Your task to perform on an android device: Search for sushi restaurants on Maps Image 0: 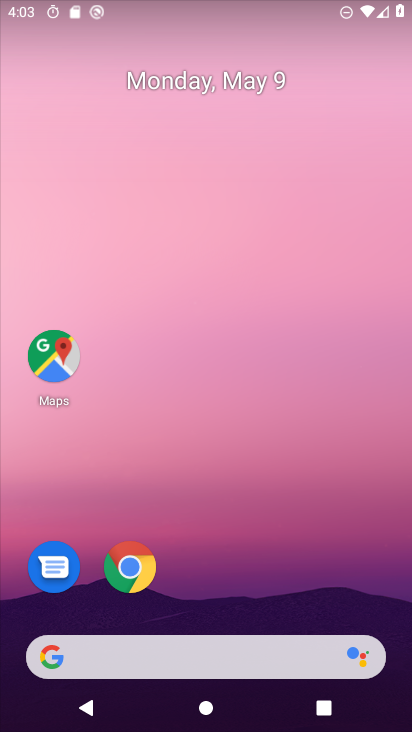
Step 0: click (58, 373)
Your task to perform on an android device: Search for sushi restaurants on Maps Image 1: 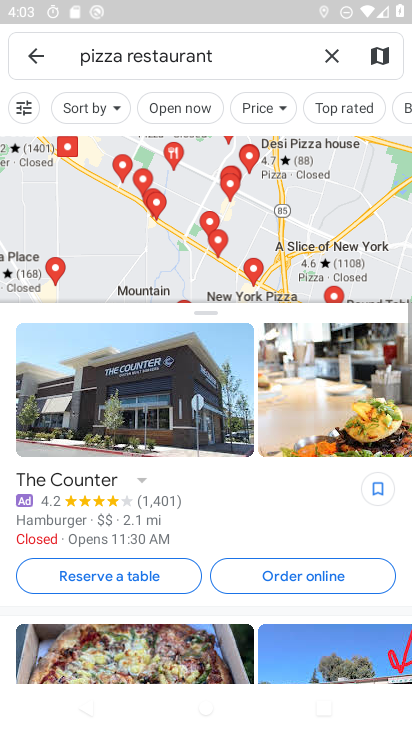
Step 1: click (331, 55)
Your task to perform on an android device: Search for sushi restaurants on Maps Image 2: 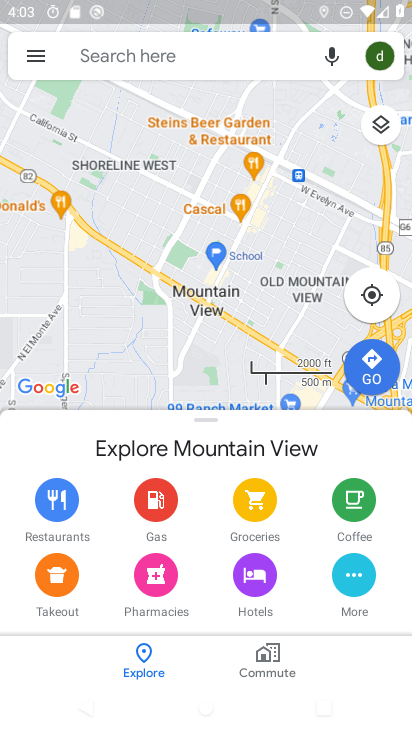
Step 2: click (155, 71)
Your task to perform on an android device: Search for sushi restaurants on Maps Image 3: 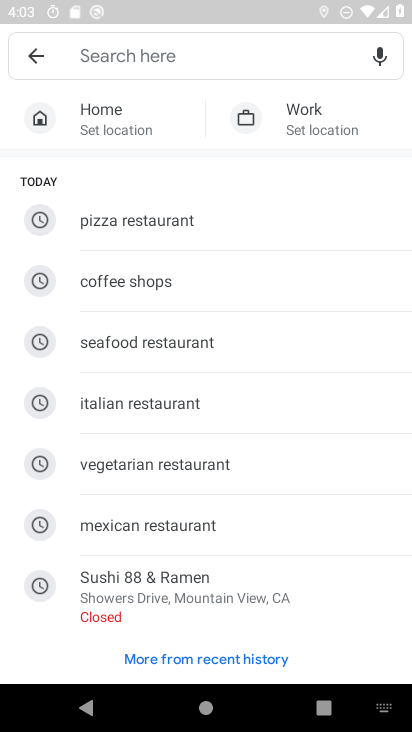
Step 3: type "sushi restaurants"
Your task to perform on an android device: Search for sushi restaurants on Maps Image 4: 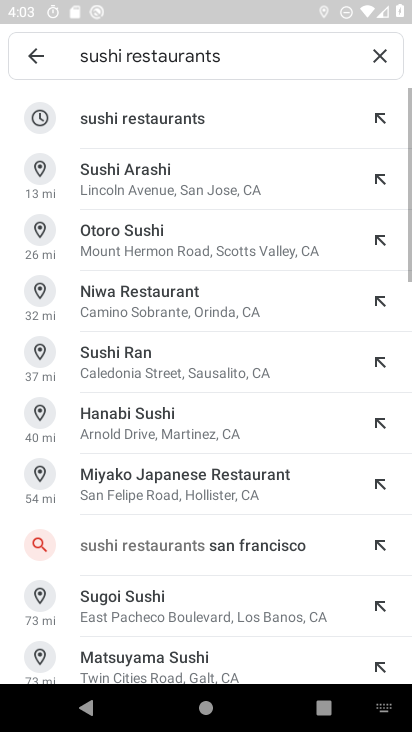
Step 4: click (166, 117)
Your task to perform on an android device: Search for sushi restaurants on Maps Image 5: 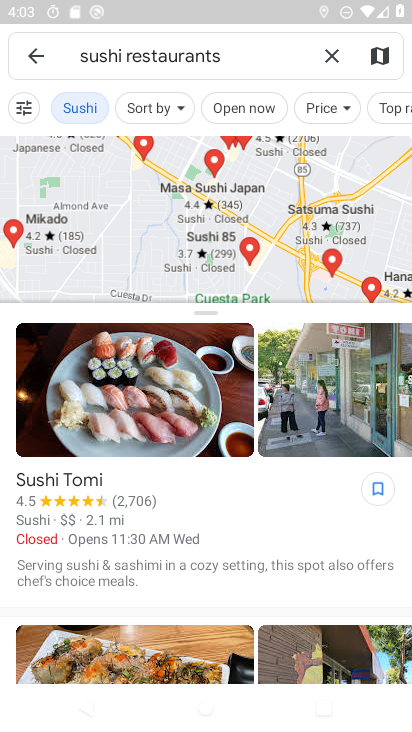
Step 5: task complete